Your task to perform on an android device: check google app version Image 0: 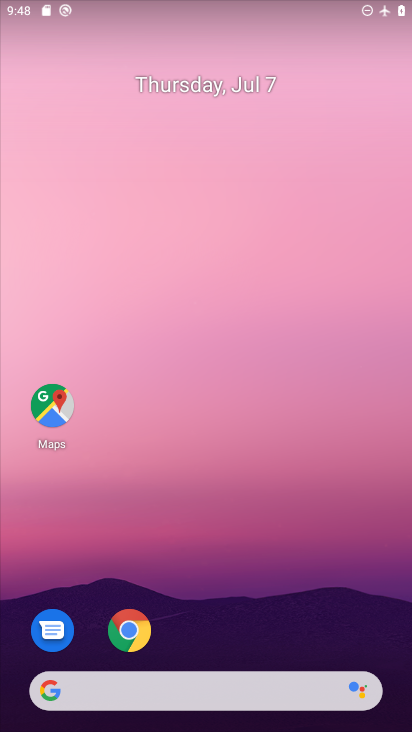
Step 0: drag from (219, 640) to (168, 70)
Your task to perform on an android device: check google app version Image 1: 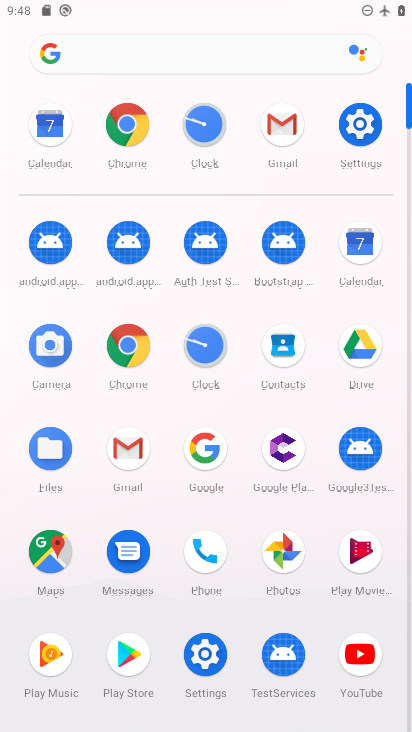
Step 1: click (202, 449)
Your task to perform on an android device: check google app version Image 2: 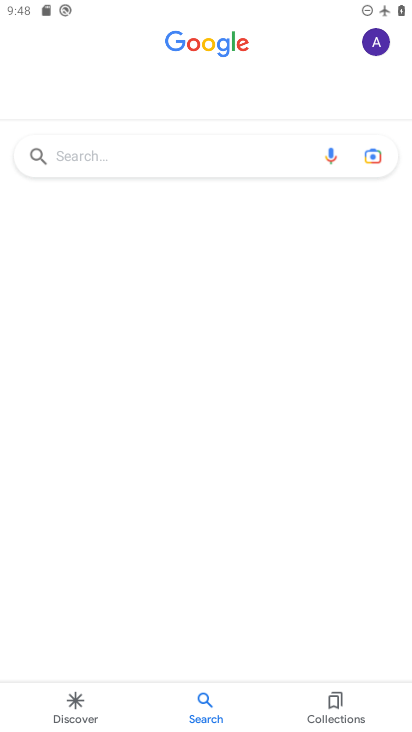
Step 2: click (373, 45)
Your task to perform on an android device: check google app version Image 3: 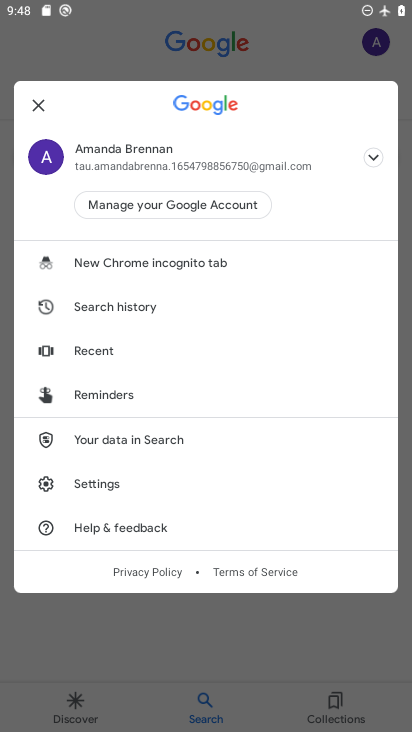
Step 3: click (72, 484)
Your task to perform on an android device: check google app version Image 4: 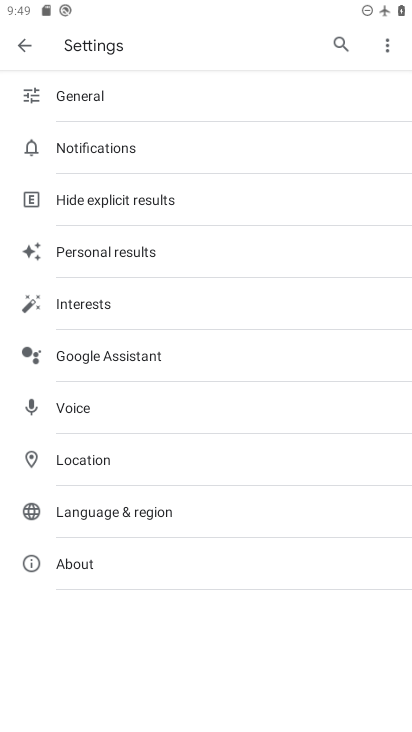
Step 4: click (103, 560)
Your task to perform on an android device: check google app version Image 5: 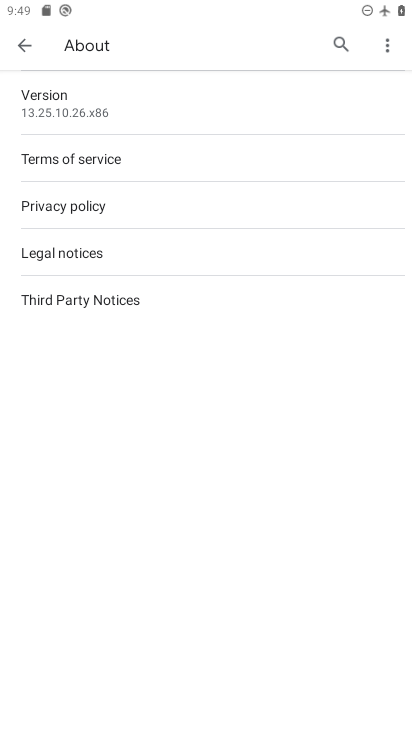
Step 5: click (70, 109)
Your task to perform on an android device: check google app version Image 6: 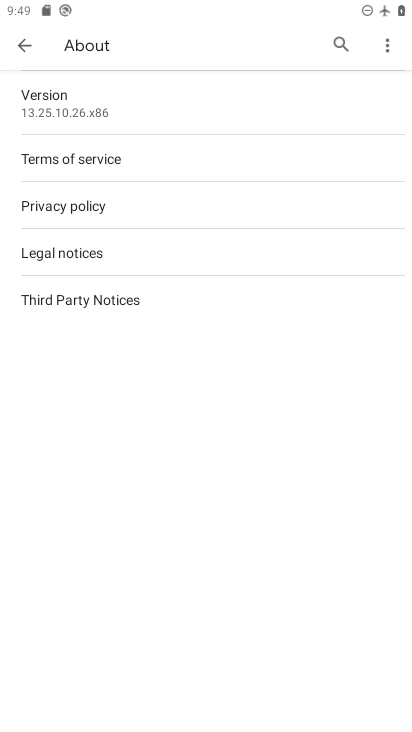
Step 6: task complete